Your task to perform on an android device: see tabs open on other devices in the chrome app Image 0: 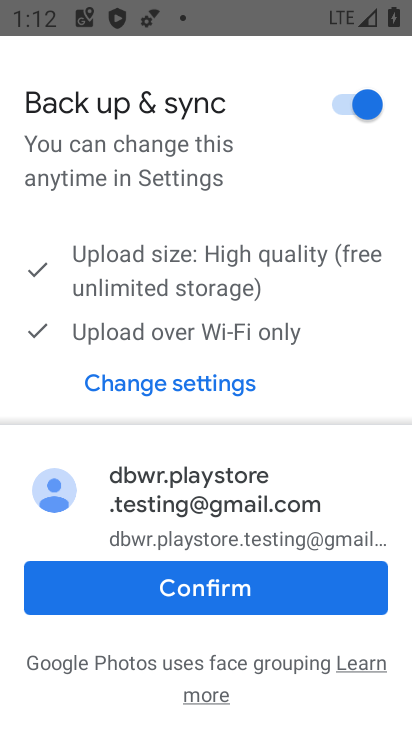
Step 0: click (305, 585)
Your task to perform on an android device: see tabs open on other devices in the chrome app Image 1: 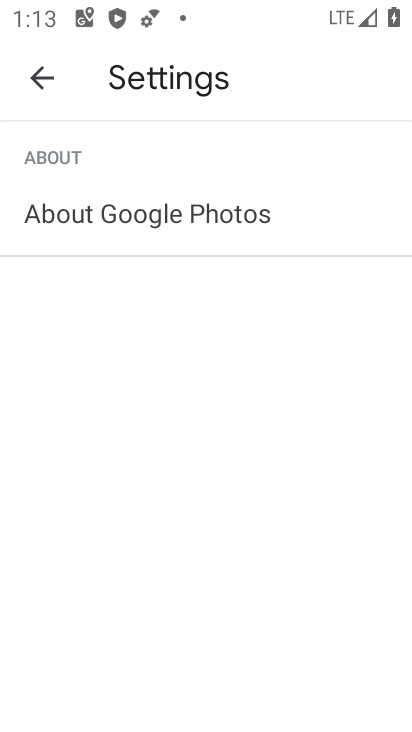
Step 1: press home button
Your task to perform on an android device: see tabs open on other devices in the chrome app Image 2: 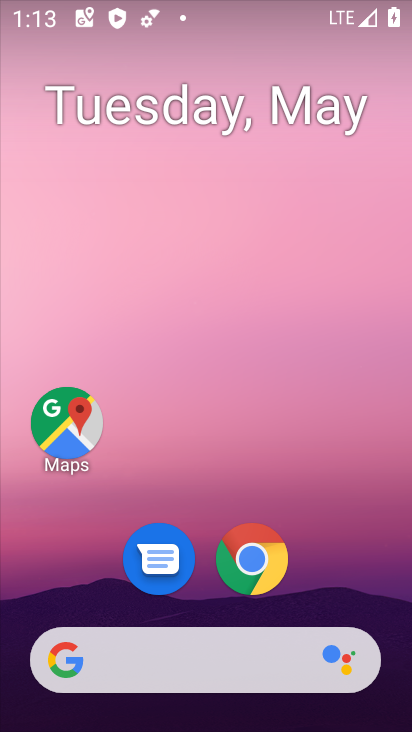
Step 2: click (256, 561)
Your task to perform on an android device: see tabs open on other devices in the chrome app Image 3: 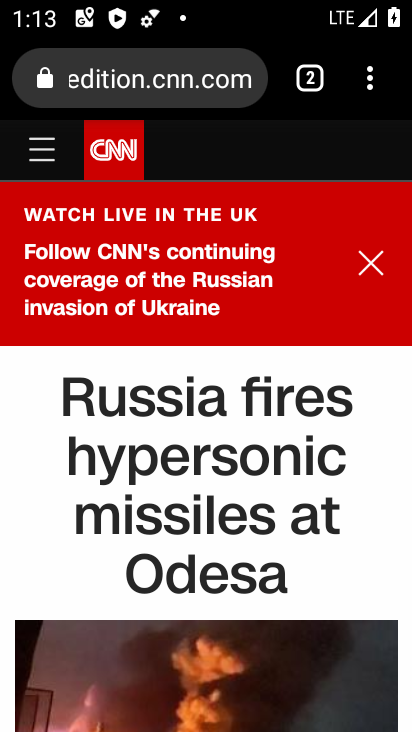
Step 3: click (371, 80)
Your task to perform on an android device: see tabs open on other devices in the chrome app Image 4: 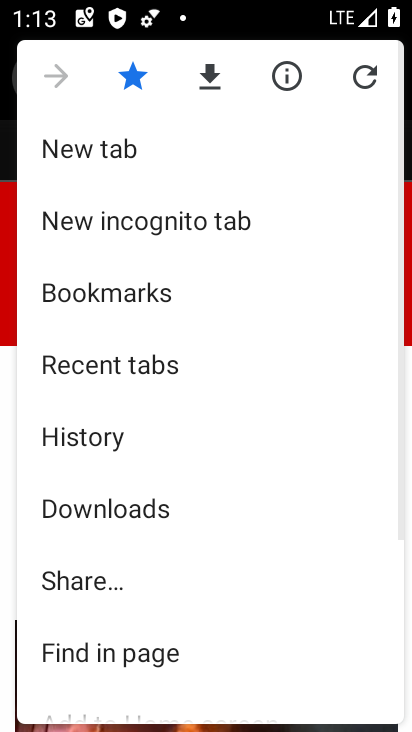
Step 4: click (170, 368)
Your task to perform on an android device: see tabs open on other devices in the chrome app Image 5: 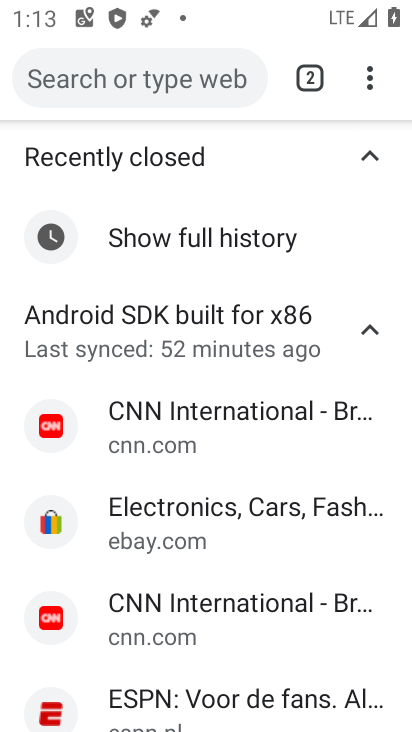
Step 5: task complete